Your task to perform on an android device: change the clock display to digital Image 0: 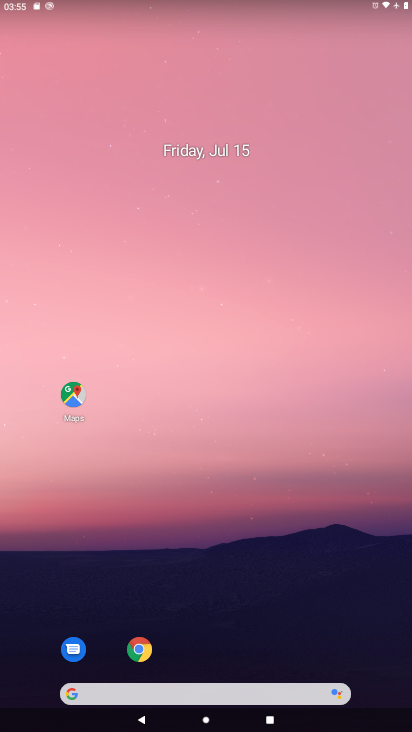
Step 0: drag from (380, 521) to (352, 117)
Your task to perform on an android device: change the clock display to digital Image 1: 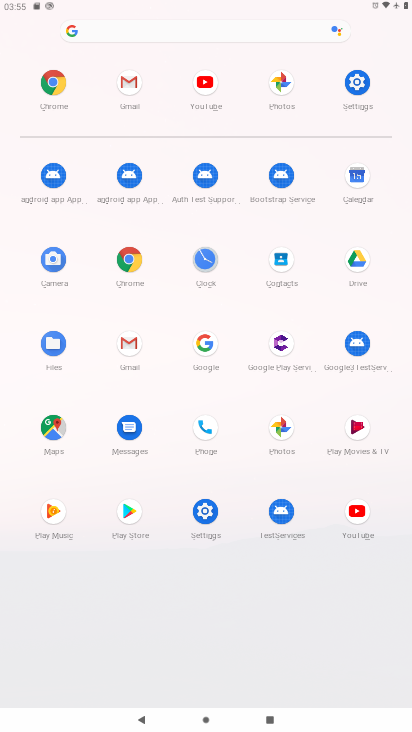
Step 1: click (204, 261)
Your task to perform on an android device: change the clock display to digital Image 2: 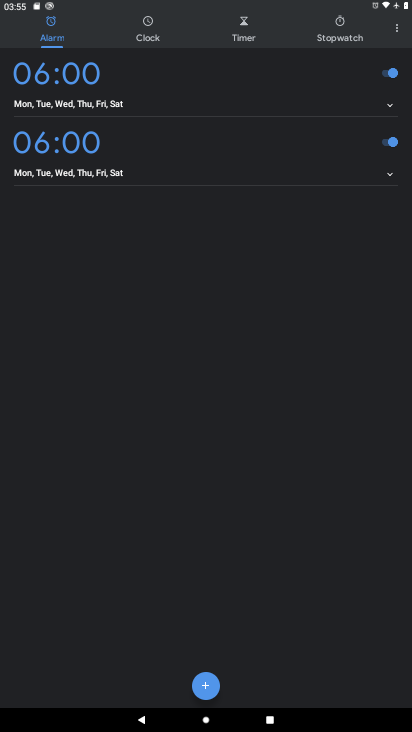
Step 2: click (397, 34)
Your task to perform on an android device: change the clock display to digital Image 3: 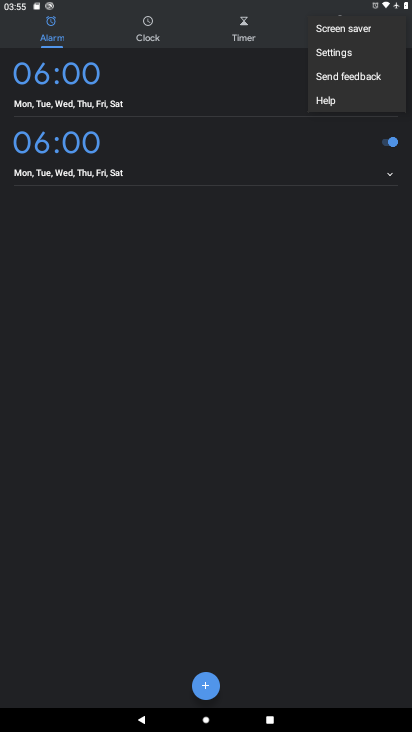
Step 3: click (331, 56)
Your task to perform on an android device: change the clock display to digital Image 4: 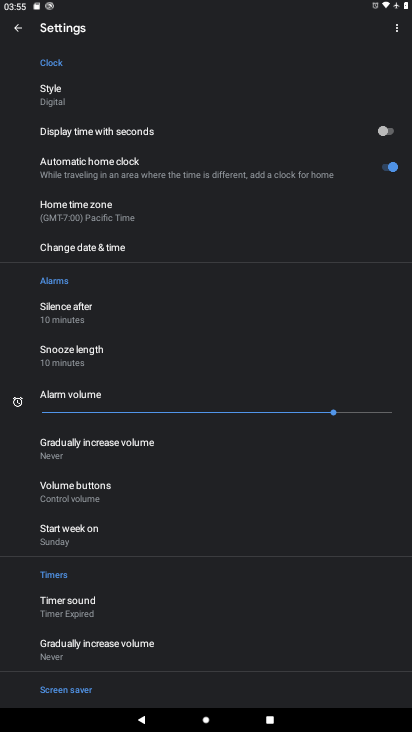
Step 4: task complete